Your task to perform on an android device: star an email in the gmail app Image 0: 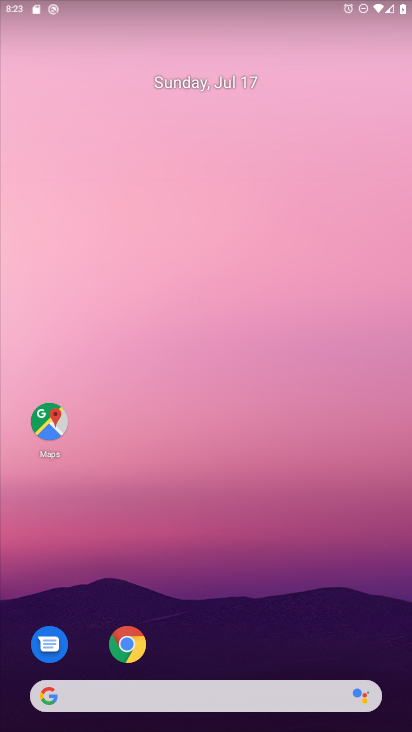
Step 0: drag from (283, 569) to (302, 104)
Your task to perform on an android device: star an email in the gmail app Image 1: 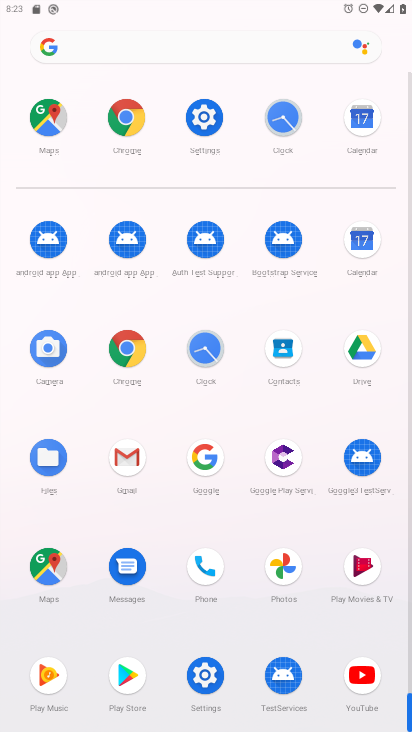
Step 1: click (122, 462)
Your task to perform on an android device: star an email in the gmail app Image 2: 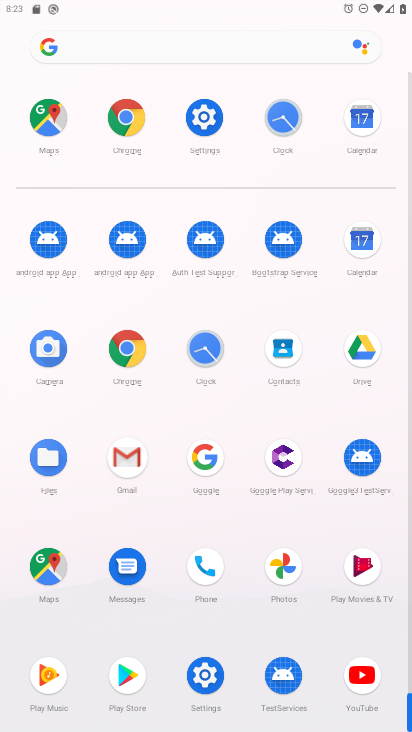
Step 2: click (121, 457)
Your task to perform on an android device: star an email in the gmail app Image 3: 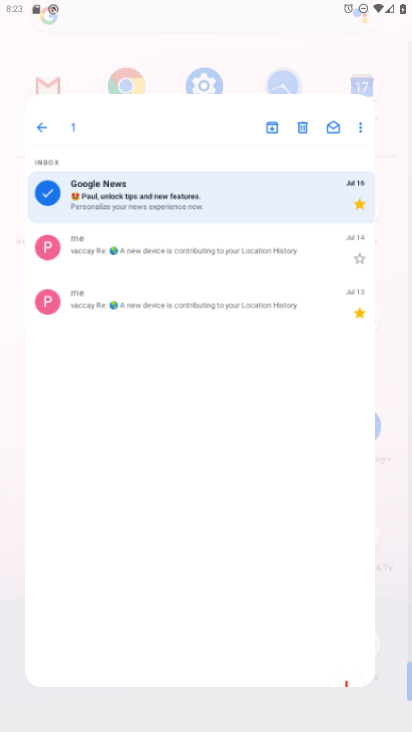
Step 3: click (121, 457)
Your task to perform on an android device: star an email in the gmail app Image 4: 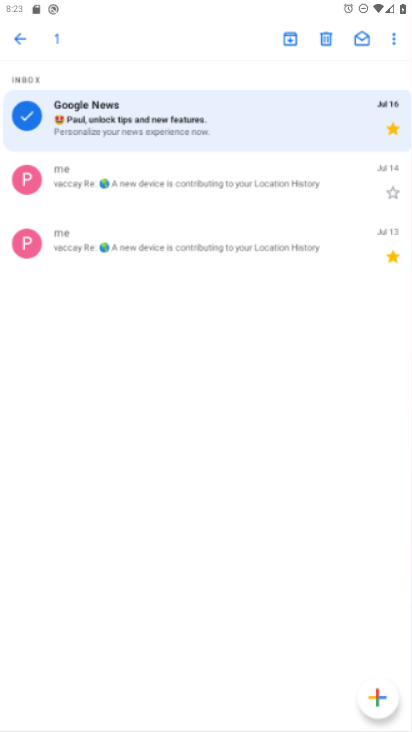
Step 4: click (126, 461)
Your task to perform on an android device: star an email in the gmail app Image 5: 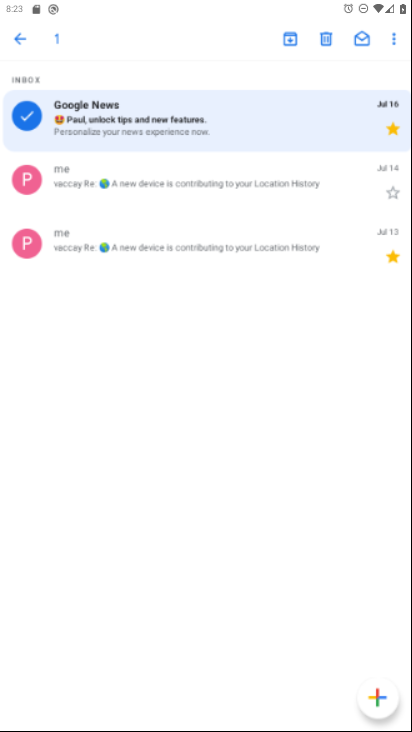
Step 5: click (128, 459)
Your task to perform on an android device: star an email in the gmail app Image 6: 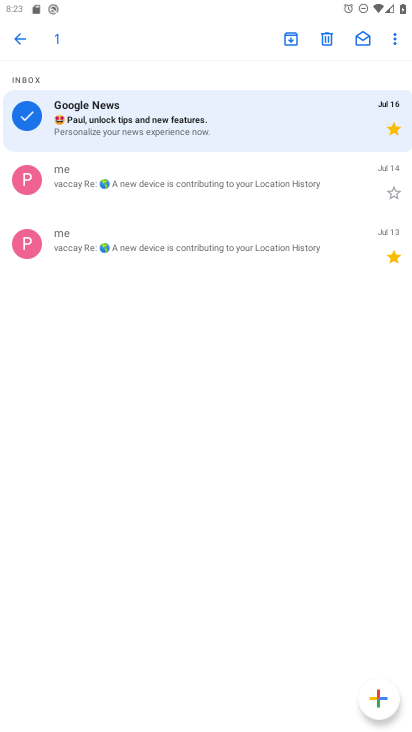
Step 6: click (395, 200)
Your task to perform on an android device: star an email in the gmail app Image 7: 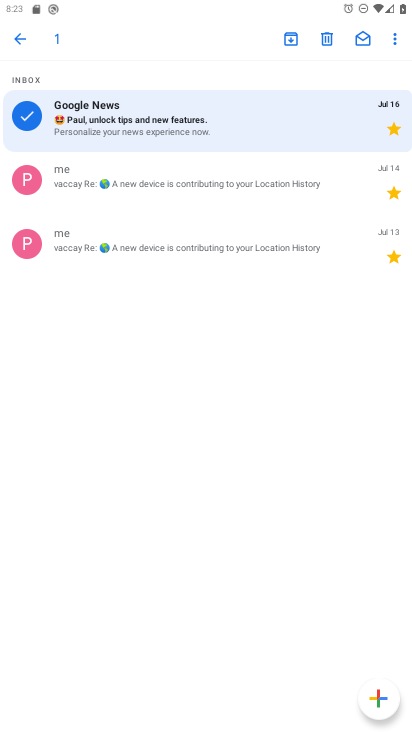
Step 7: task complete